Your task to perform on an android device: Open network settings Image 0: 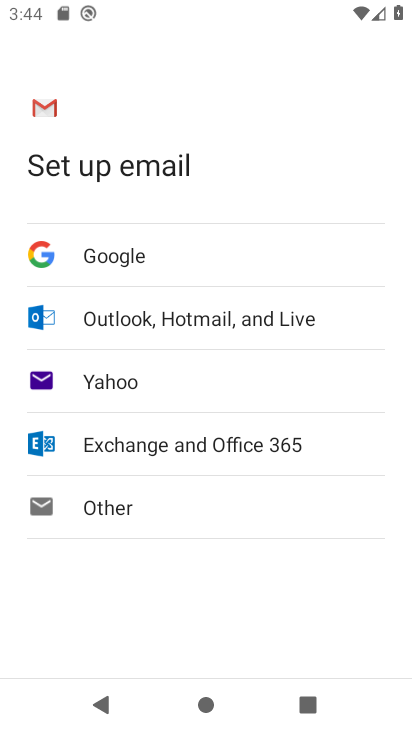
Step 0: press home button
Your task to perform on an android device: Open network settings Image 1: 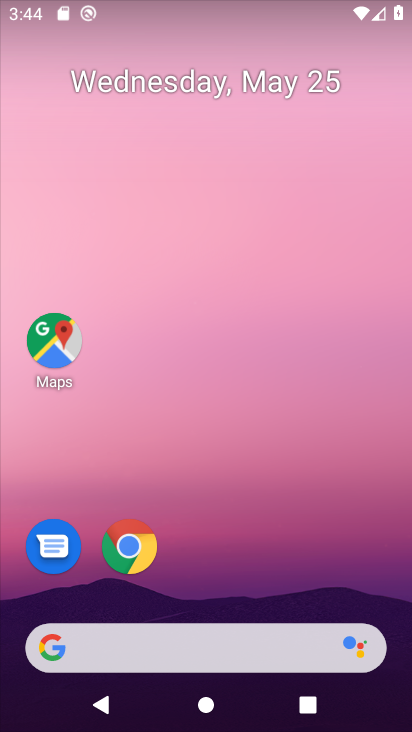
Step 1: drag from (238, 583) to (211, 166)
Your task to perform on an android device: Open network settings Image 2: 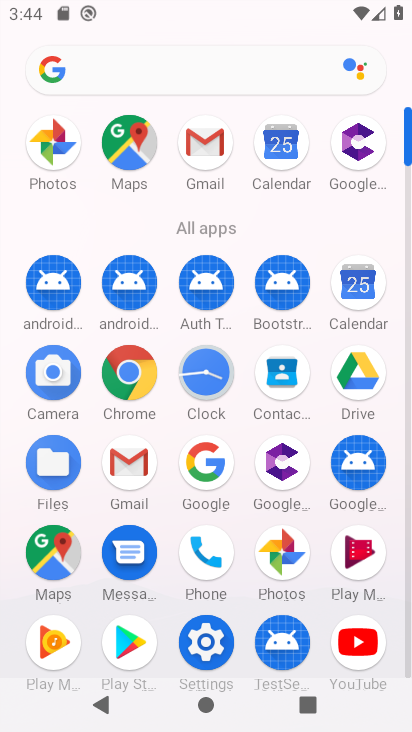
Step 2: click (196, 633)
Your task to perform on an android device: Open network settings Image 3: 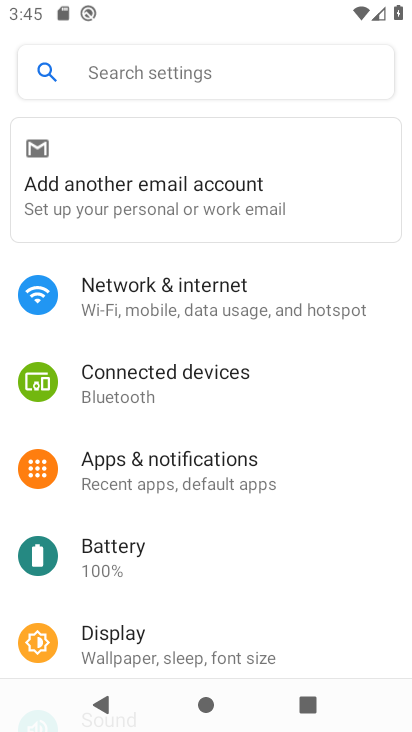
Step 3: click (191, 309)
Your task to perform on an android device: Open network settings Image 4: 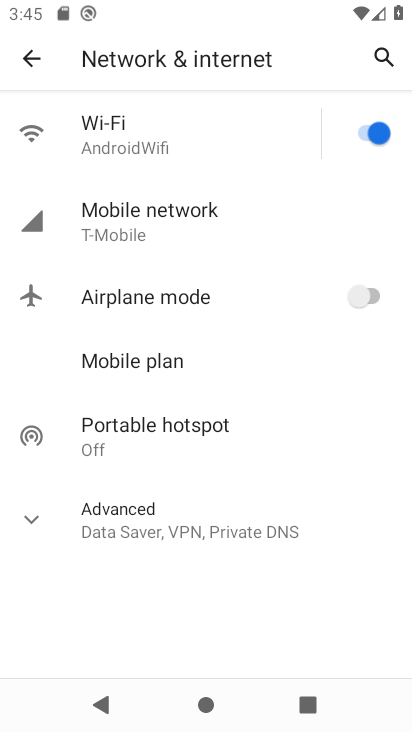
Step 4: task complete